Your task to perform on an android device: Open the phone app and click the voicemail tab. Image 0: 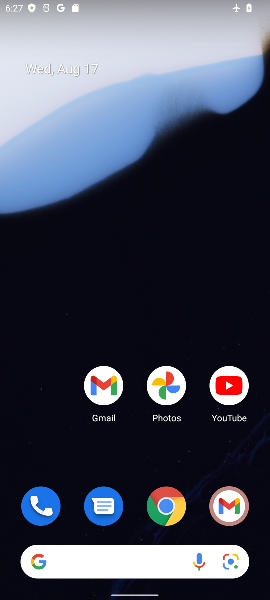
Step 0: press home button
Your task to perform on an android device: Open the phone app and click the voicemail tab. Image 1: 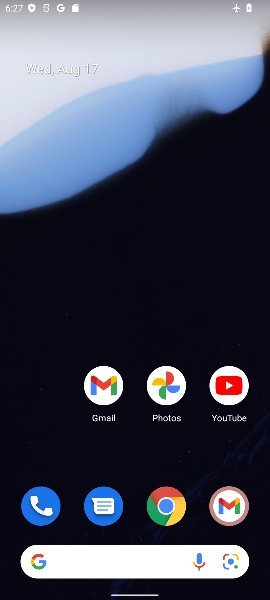
Step 1: press home button
Your task to perform on an android device: Open the phone app and click the voicemail tab. Image 2: 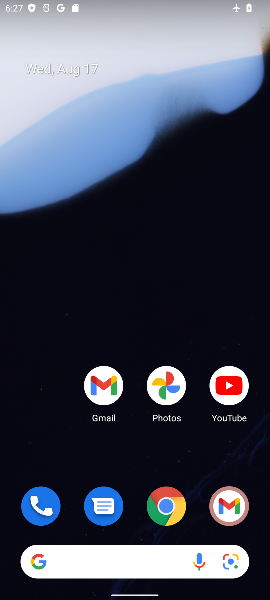
Step 2: press home button
Your task to perform on an android device: Open the phone app and click the voicemail tab. Image 3: 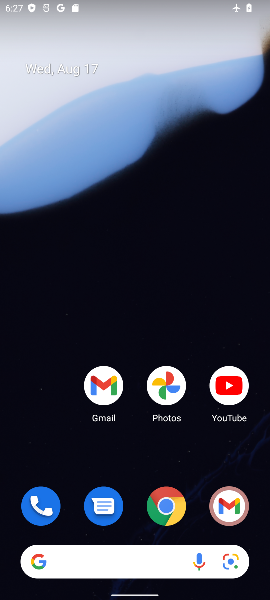
Step 3: drag from (142, 376) to (177, 37)
Your task to perform on an android device: Open the phone app and click the voicemail tab. Image 4: 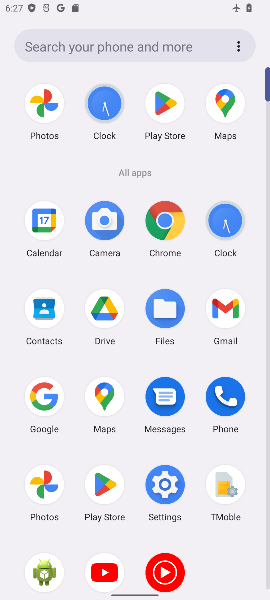
Step 4: click (232, 393)
Your task to perform on an android device: Open the phone app and click the voicemail tab. Image 5: 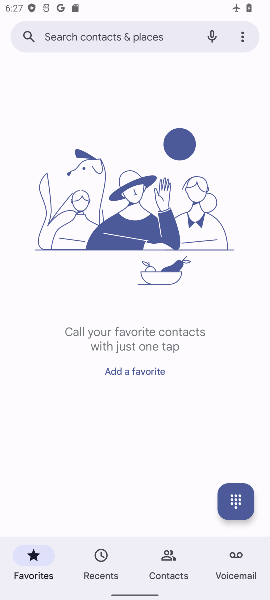
Step 5: click (228, 560)
Your task to perform on an android device: Open the phone app and click the voicemail tab. Image 6: 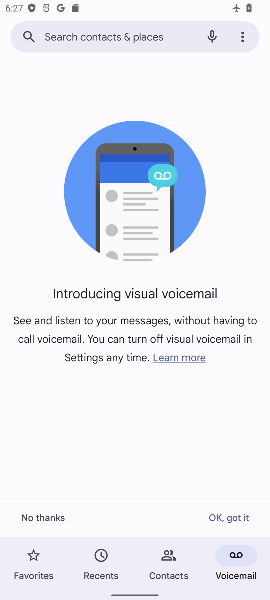
Step 6: task complete